Your task to perform on an android device: View the shopping cart on newegg.com. Search for bose soundlink on newegg.com, select the first entry, and add it to the cart. Image 0: 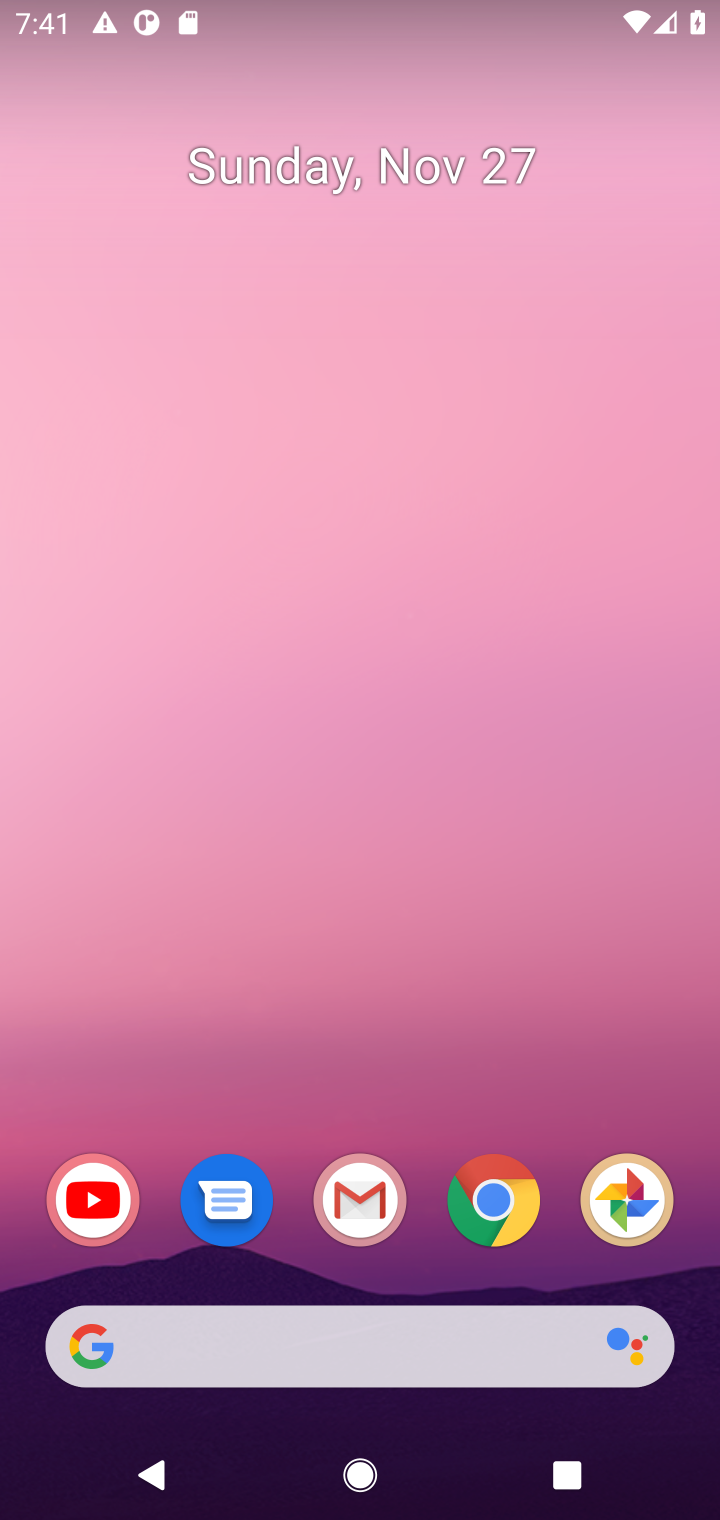
Step 0: click (501, 1207)
Your task to perform on an android device: View the shopping cart on newegg.com. Search for bose soundlink on newegg.com, select the first entry, and add it to the cart. Image 1: 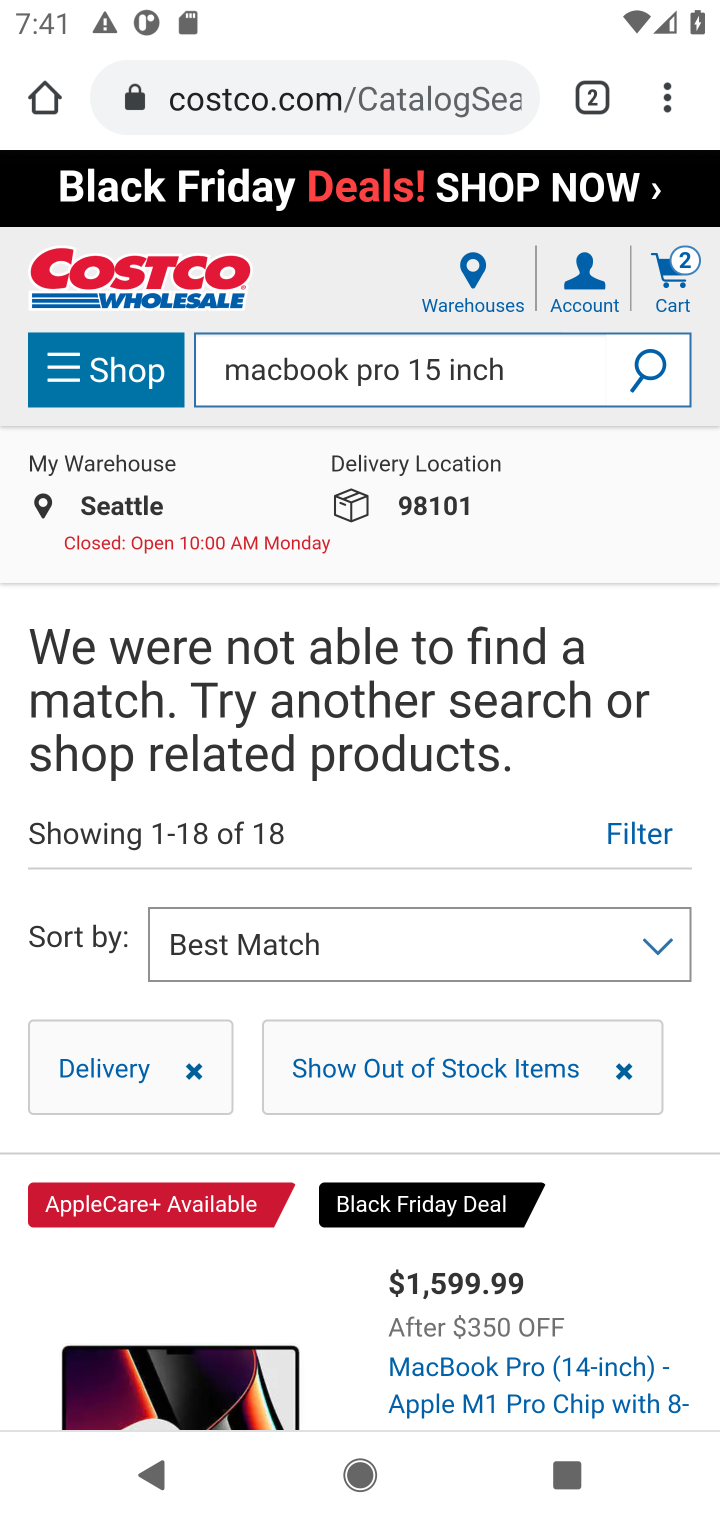
Step 1: click (318, 102)
Your task to perform on an android device: View the shopping cart on newegg.com. Search for bose soundlink on newegg.com, select the first entry, and add it to the cart. Image 2: 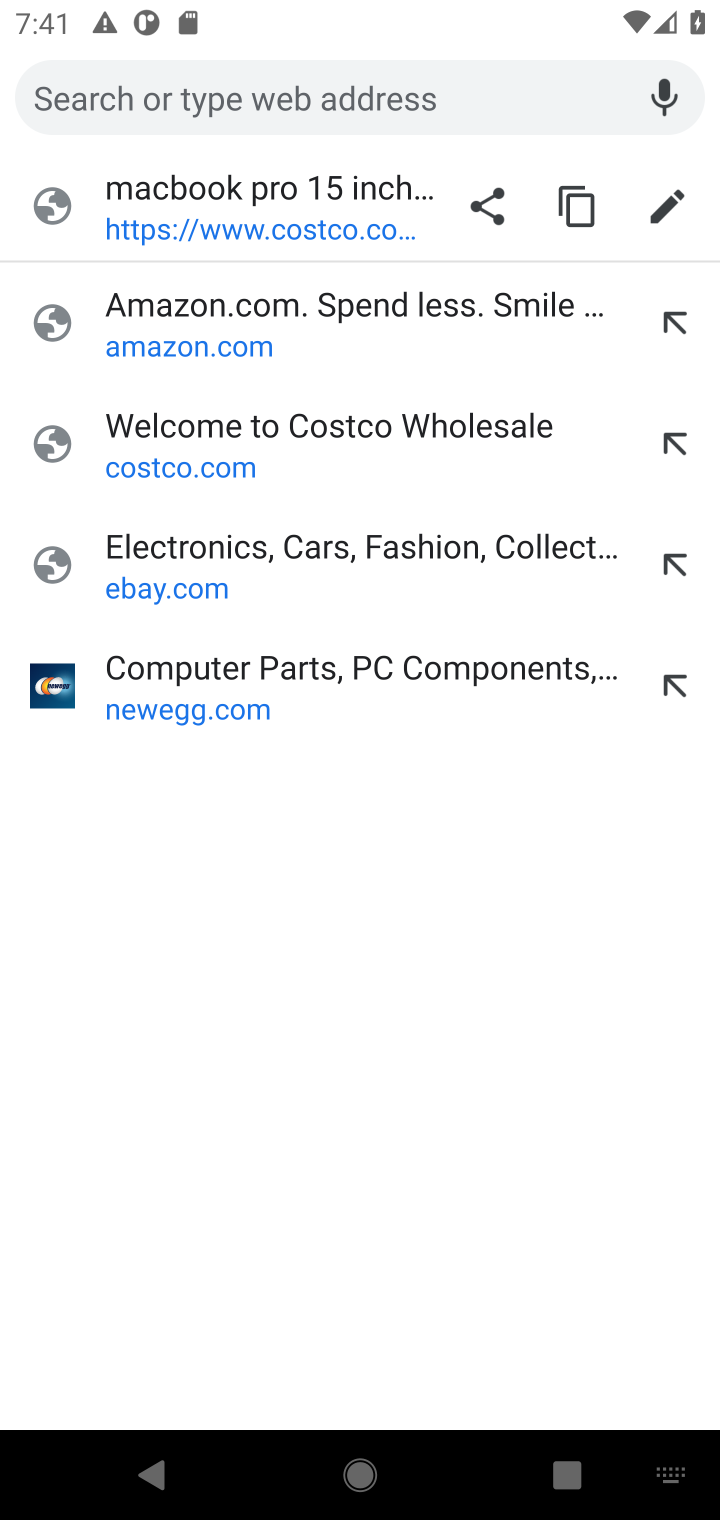
Step 2: click (136, 683)
Your task to perform on an android device: View the shopping cart on newegg.com. Search for bose soundlink on newegg.com, select the first entry, and add it to the cart. Image 3: 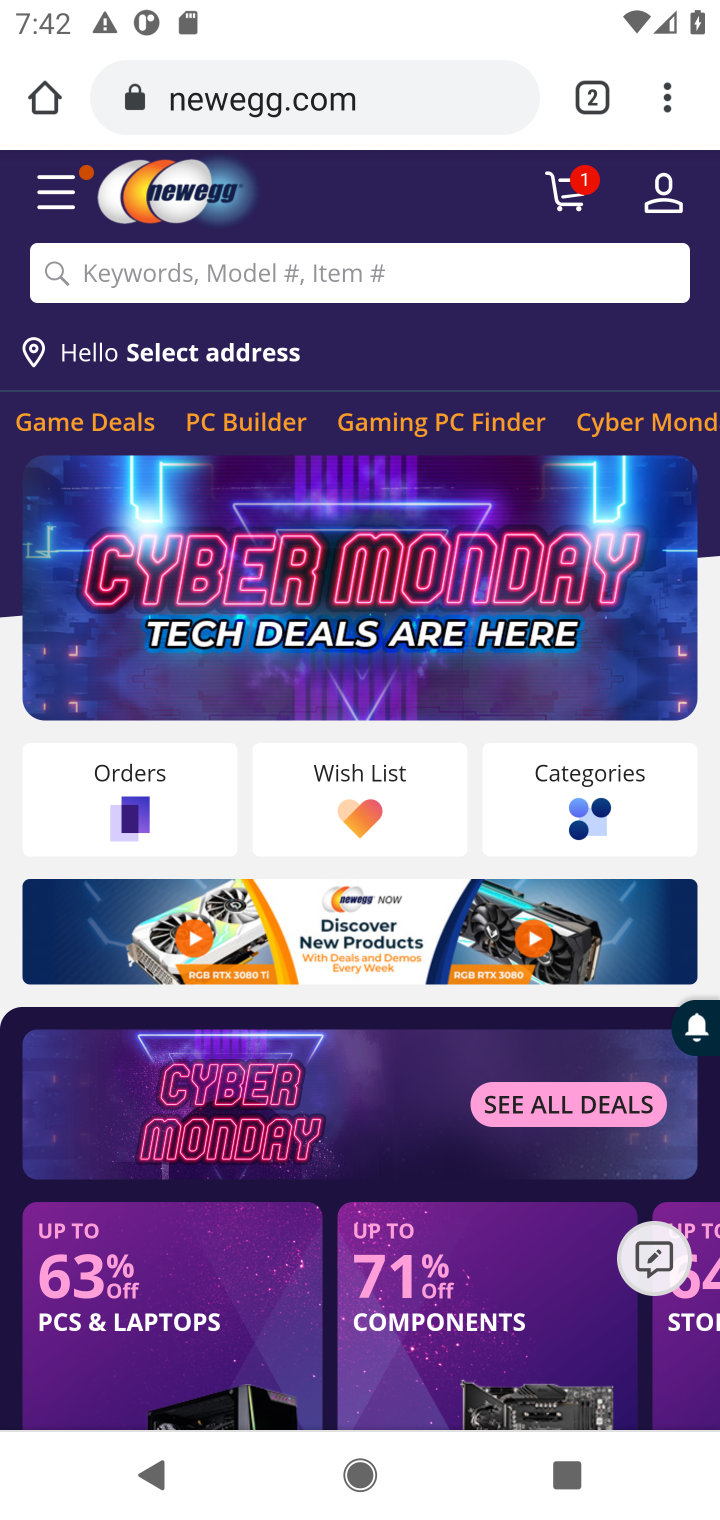
Step 3: click (567, 194)
Your task to perform on an android device: View the shopping cart on newegg.com. Search for bose soundlink on newegg.com, select the first entry, and add it to the cart. Image 4: 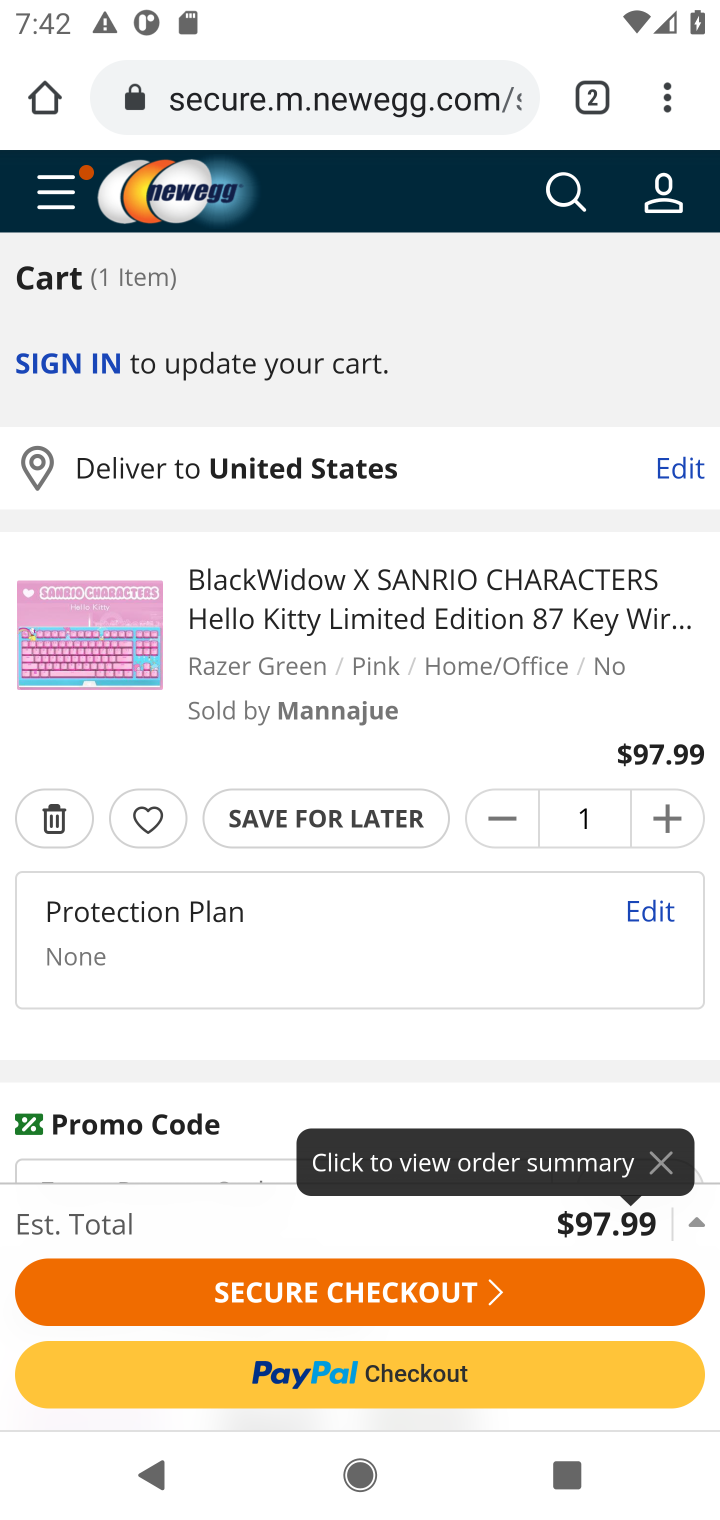
Step 4: click (562, 204)
Your task to perform on an android device: View the shopping cart on newegg.com. Search for bose soundlink on newegg.com, select the first entry, and add it to the cart. Image 5: 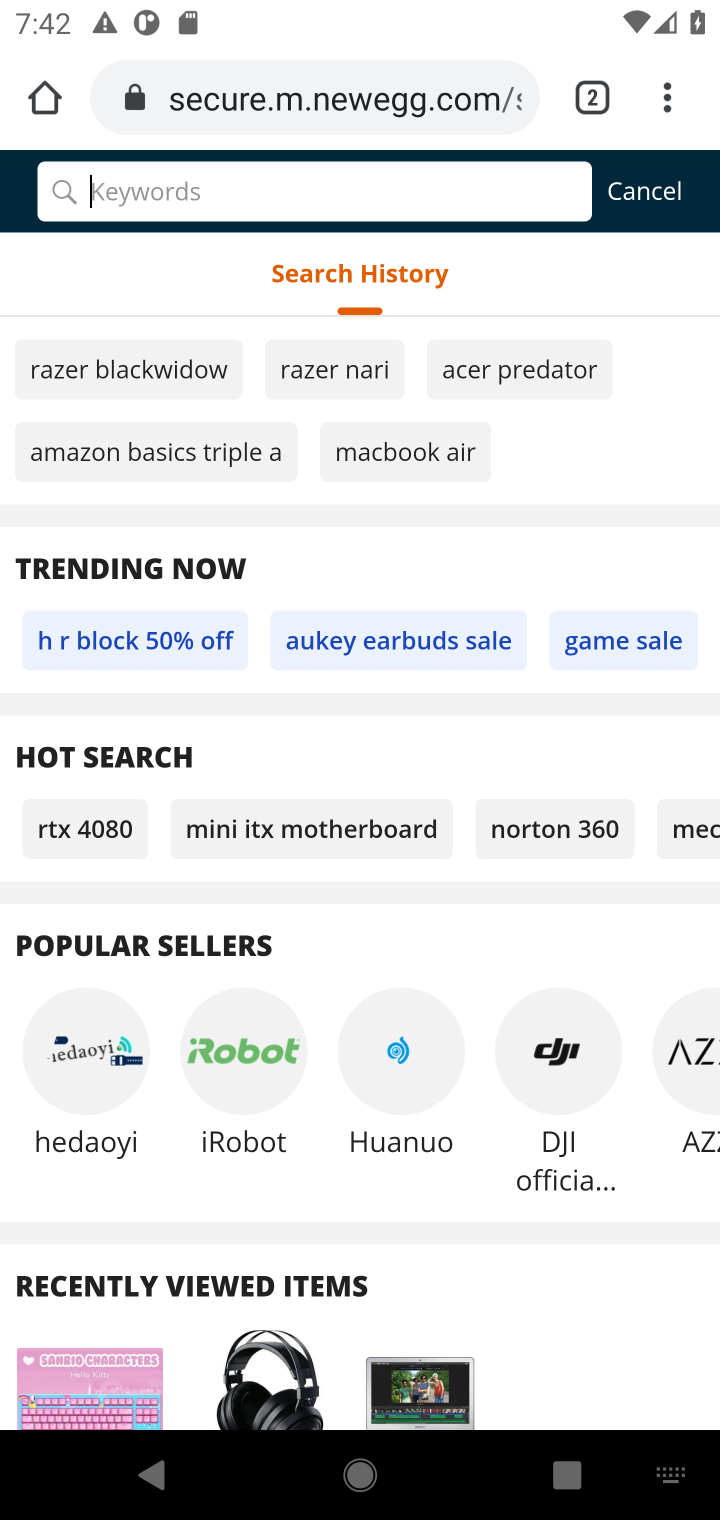
Step 5: type "bose soundlink"
Your task to perform on an android device: View the shopping cart on newegg.com. Search for bose soundlink on newegg.com, select the first entry, and add it to the cart. Image 6: 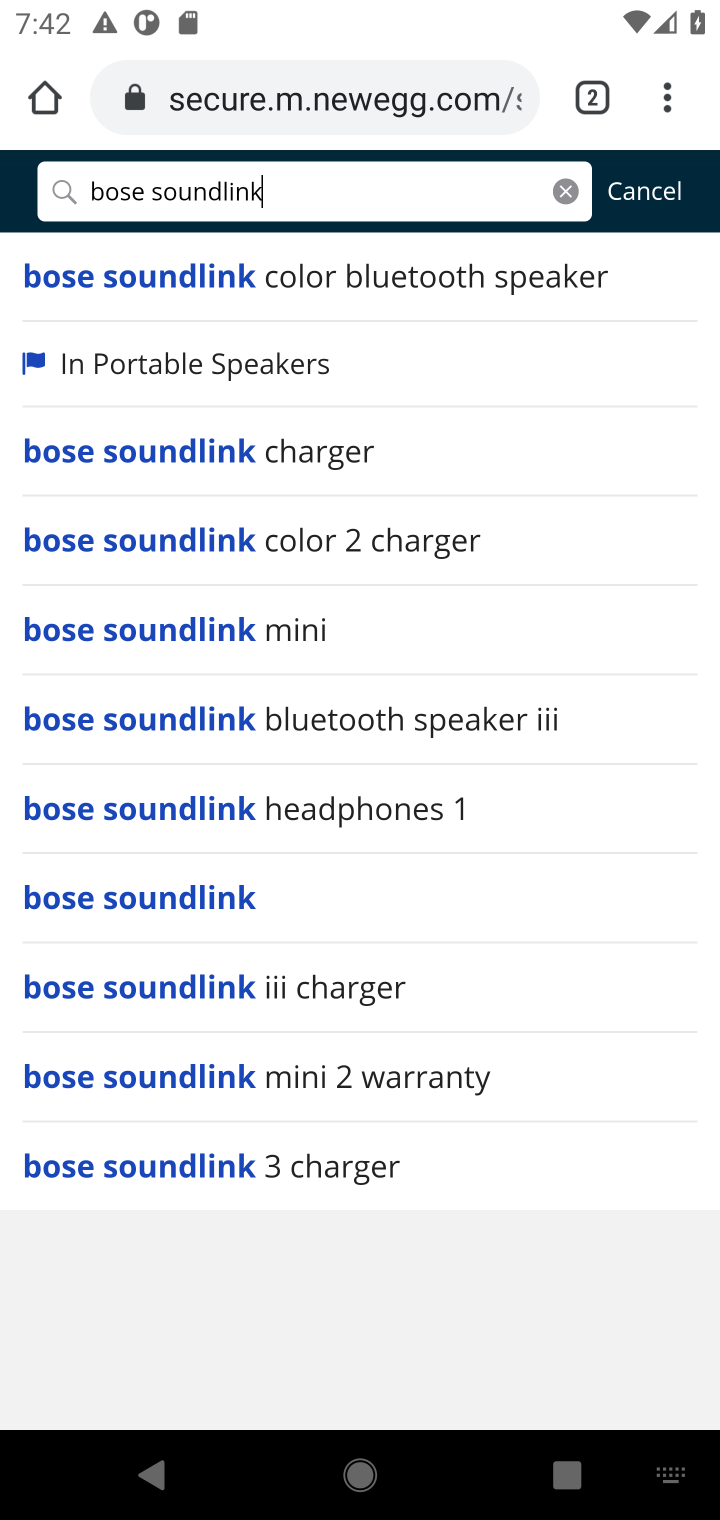
Step 6: click (138, 890)
Your task to perform on an android device: View the shopping cart on newegg.com. Search for bose soundlink on newegg.com, select the first entry, and add it to the cart. Image 7: 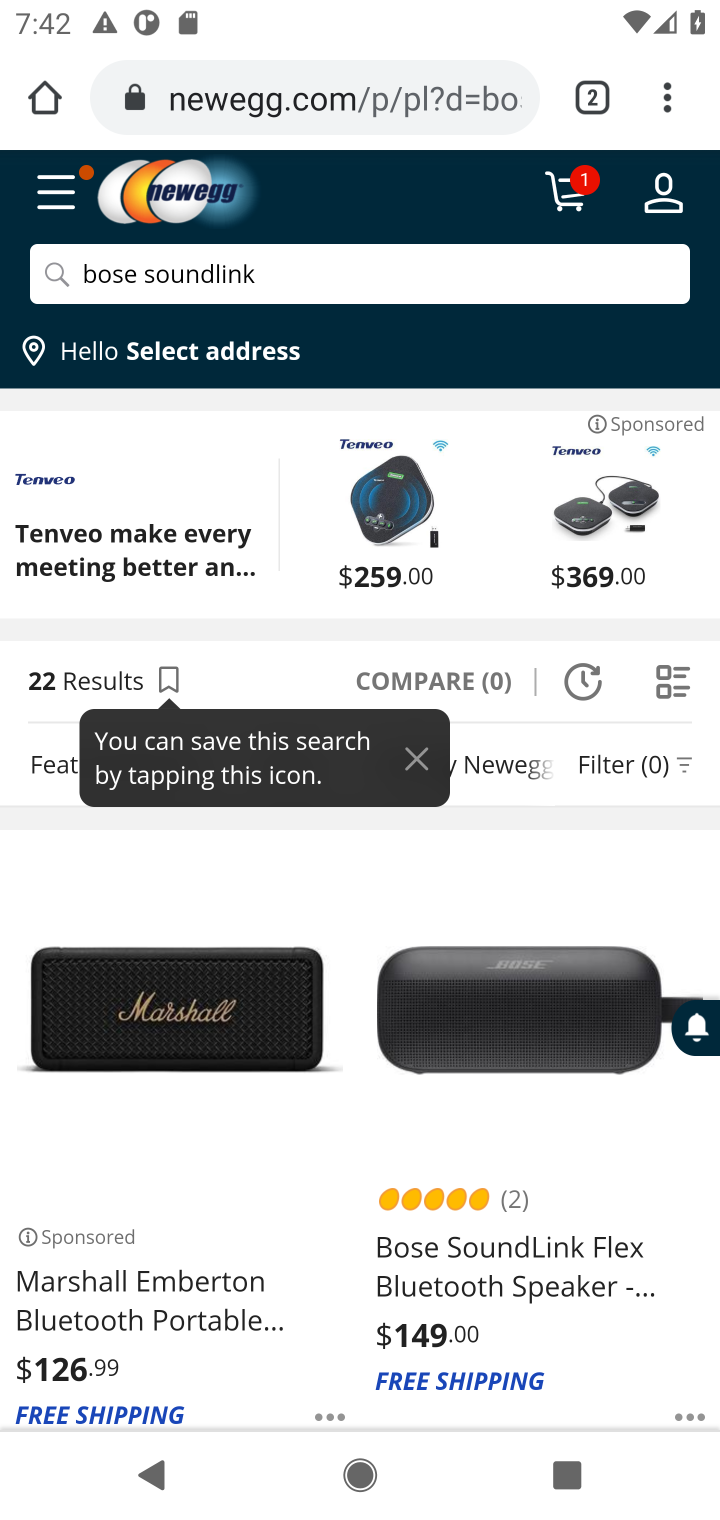
Step 7: task complete